Your task to perform on an android device: change the clock display to analog Image 0: 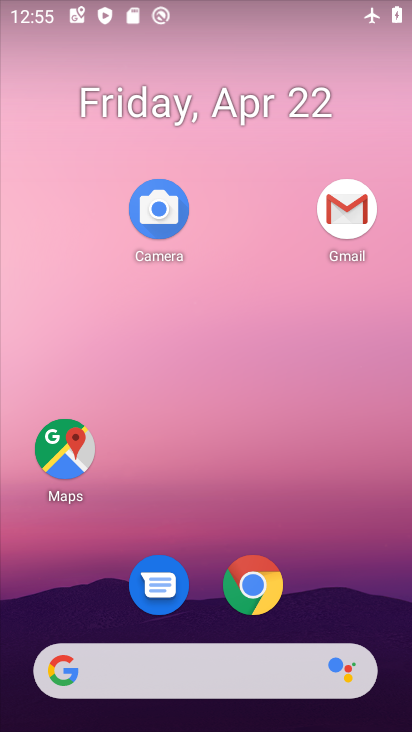
Step 0: drag from (308, 566) to (279, 125)
Your task to perform on an android device: change the clock display to analog Image 1: 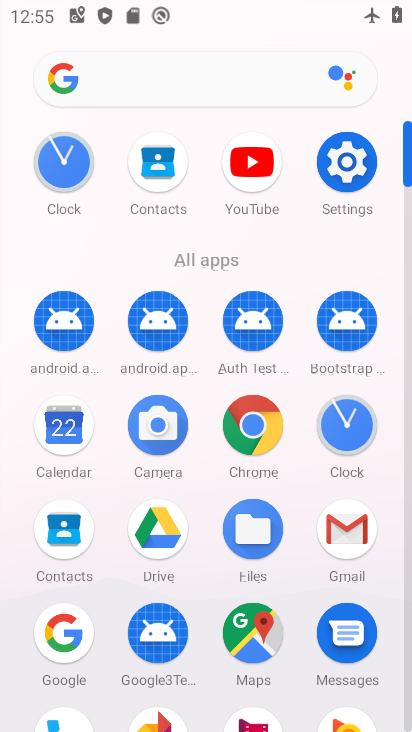
Step 1: click (73, 159)
Your task to perform on an android device: change the clock display to analog Image 2: 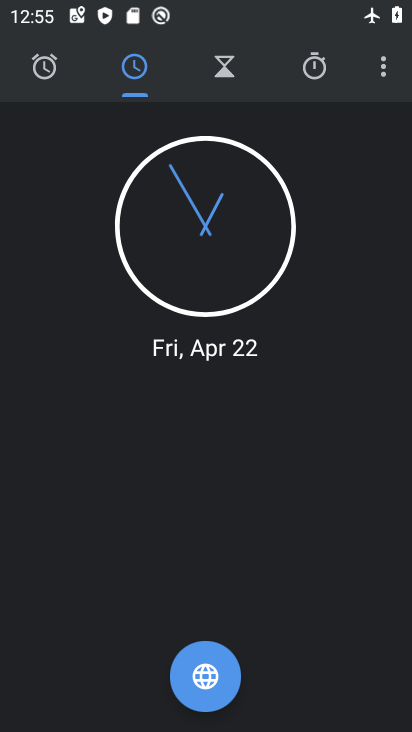
Step 2: click (384, 71)
Your task to perform on an android device: change the clock display to analog Image 3: 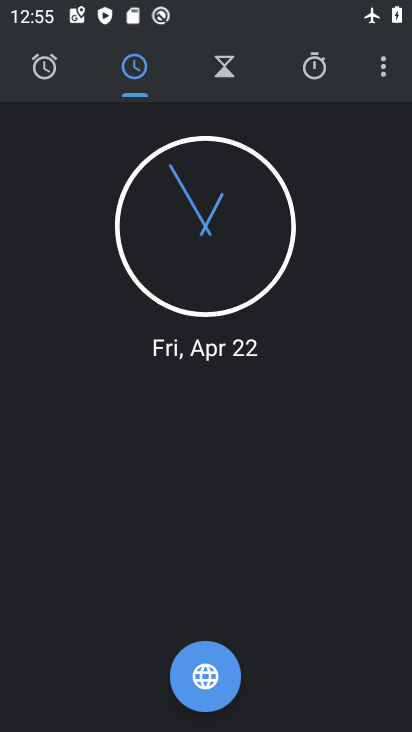
Step 3: click (384, 70)
Your task to perform on an android device: change the clock display to analog Image 4: 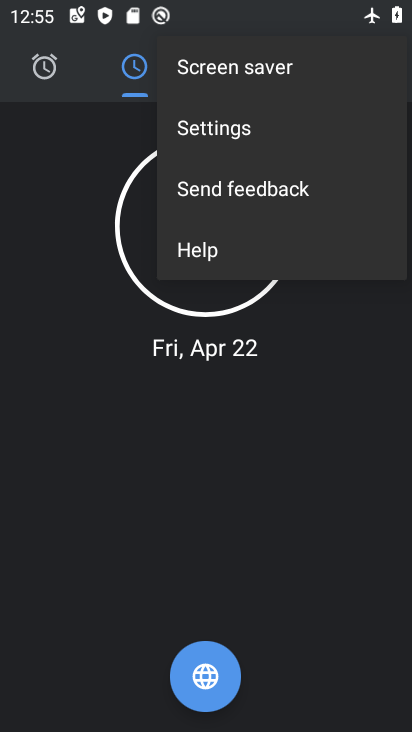
Step 4: click (307, 129)
Your task to perform on an android device: change the clock display to analog Image 5: 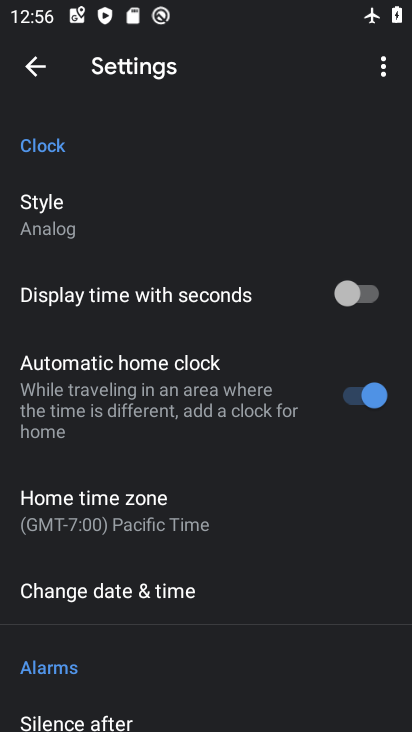
Step 5: task complete